Your task to perform on an android device: turn off notifications settings in the gmail app Image 0: 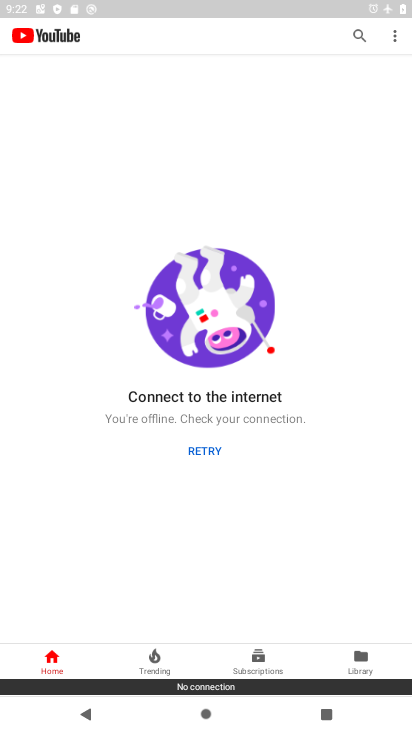
Step 0: press home button
Your task to perform on an android device: turn off notifications settings in the gmail app Image 1: 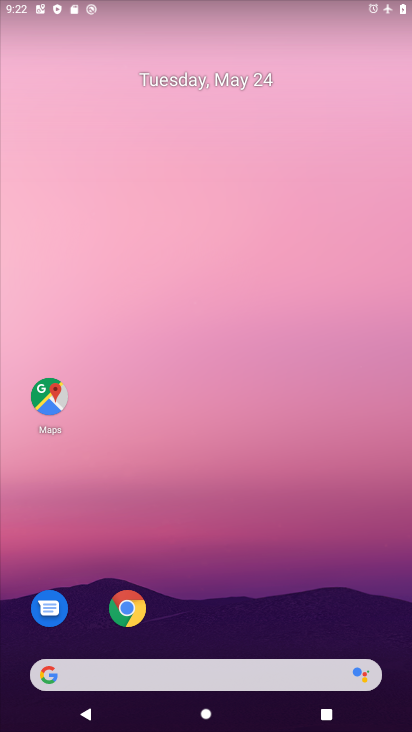
Step 1: drag from (186, 634) to (190, 0)
Your task to perform on an android device: turn off notifications settings in the gmail app Image 2: 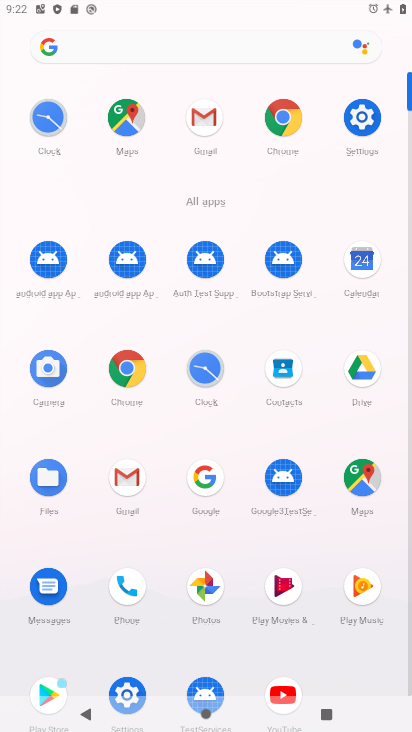
Step 2: click (135, 484)
Your task to perform on an android device: turn off notifications settings in the gmail app Image 3: 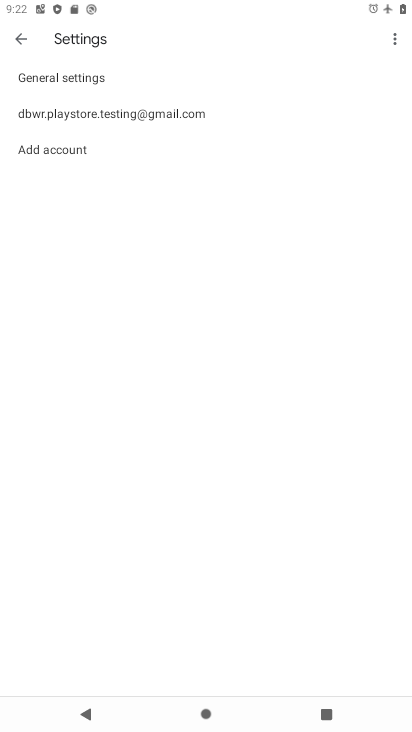
Step 3: click (91, 69)
Your task to perform on an android device: turn off notifications settings in the gmail app Image 4: 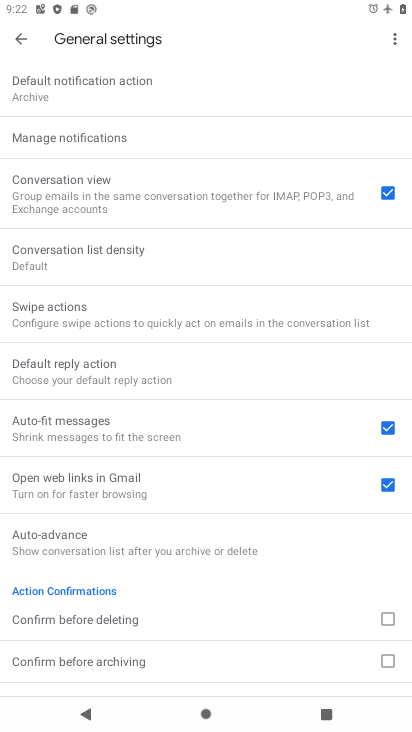
Step 4: click (101, 133)
Your task to perform on an android device: turn off notifications settings in the gmail app Image 5: 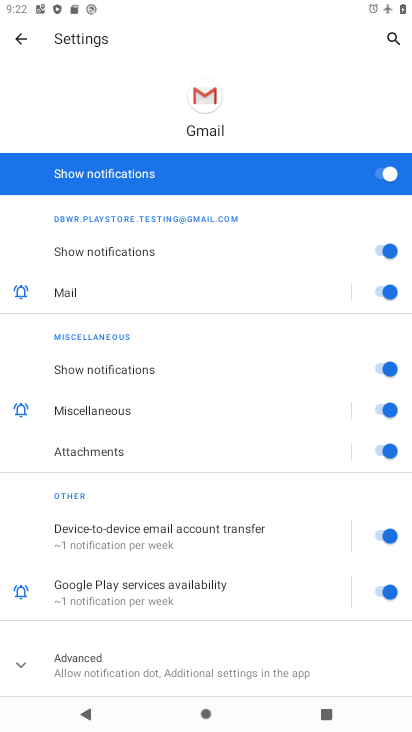
Step 5: click (362, 175)
Your task to perform on an android device: turn off notifications settings in the gmail app Image 6: 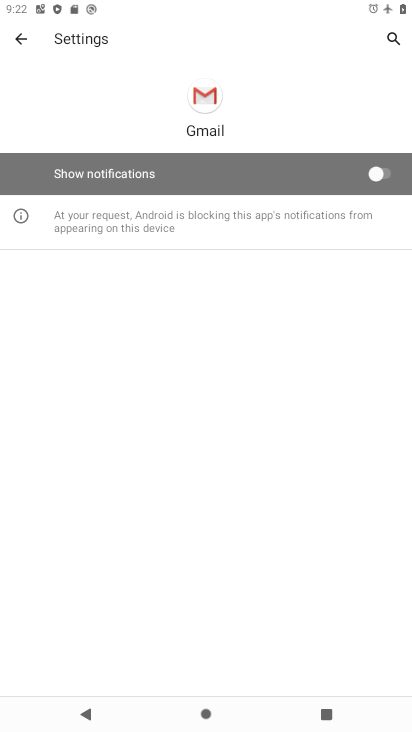
Step 6: task complete